Your task to perform on an android device: What's the weather? Image 0: 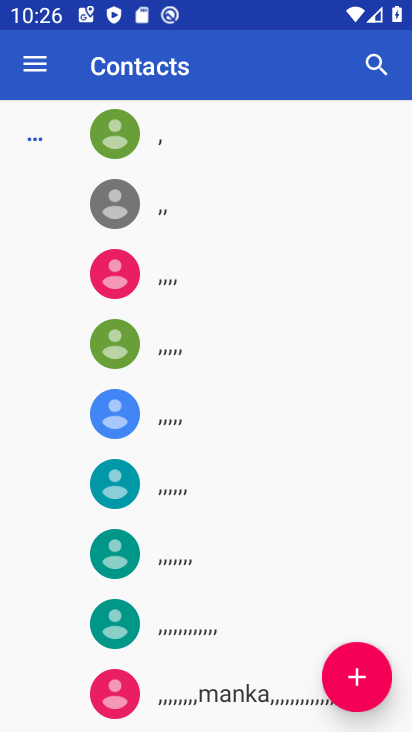
Step 0: press home button
Your task to perform on an android device: What's the weather? Image 1: 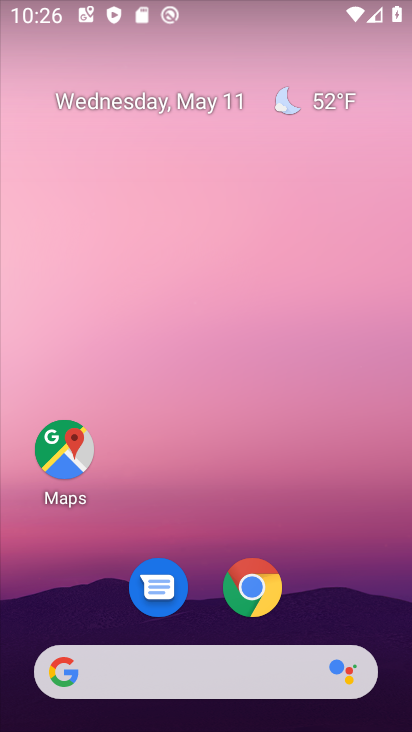
Step 1: click (200, 674)
Your task to perform on an android device: What's the weather? Image 2: 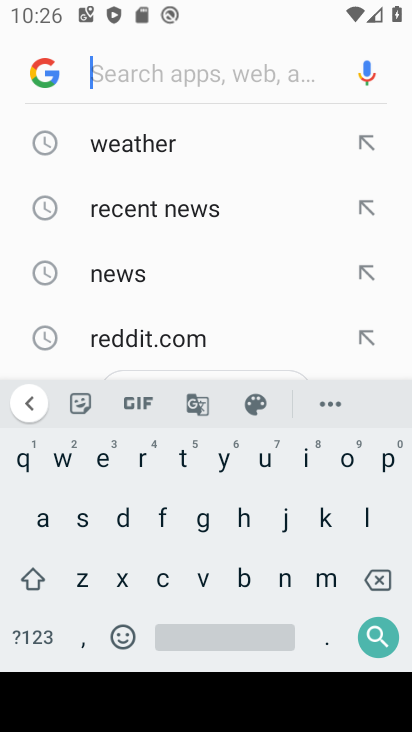
Step 2: click (159, 164)
Your task to perform on an android device: What's the weather? Image 3: 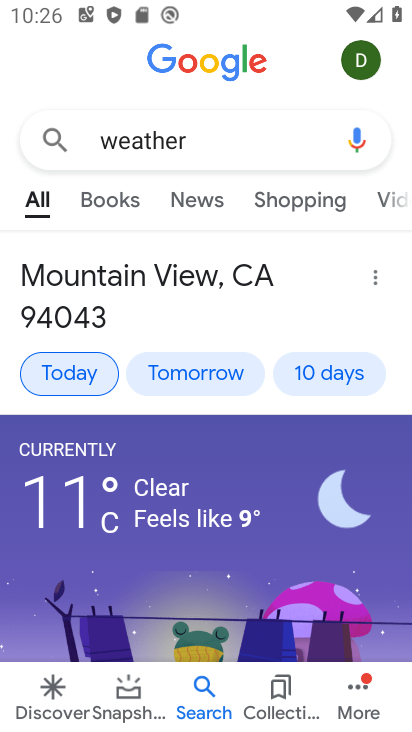
Step 3: task complete